Your task to perform on an android device: Go to ESPN.com Image 0: 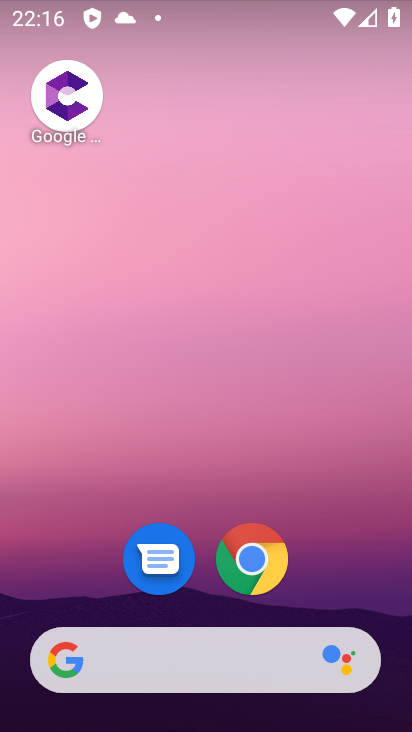
Step 0: click (255, 555)
Your task to perform on an android device: Go to ESPN.com Image 1: 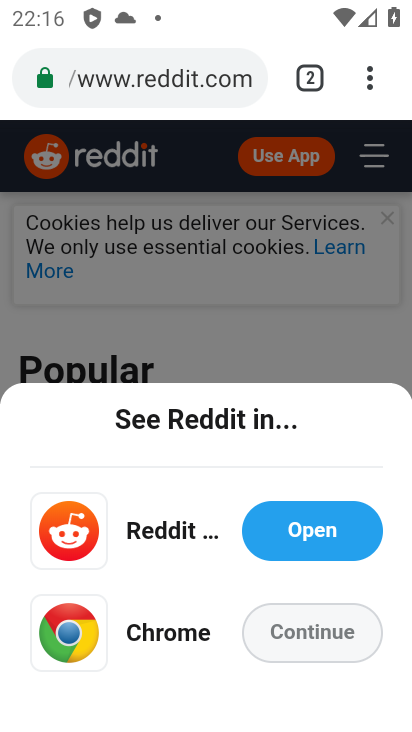
Step 1: click (219, 71)
Your task to perform on an android device: Go to ESPN.com Image 2: 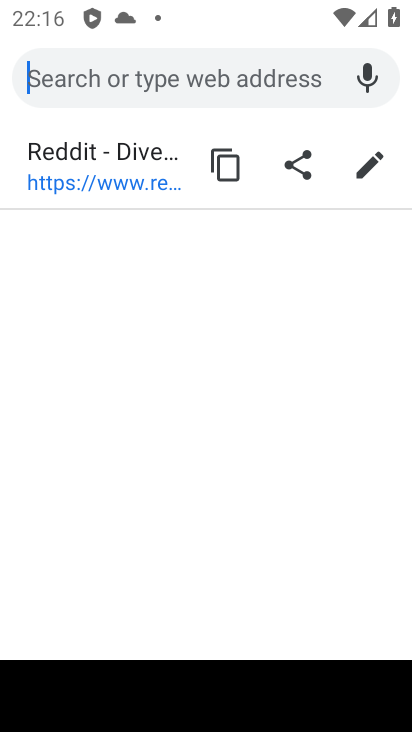
Step 2: type "espn.com"
Your task to perform on an android device: Go to ESPN.com Image 3: 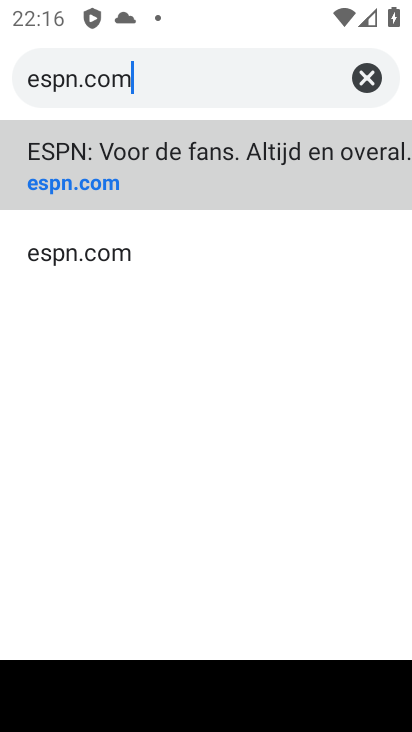
Step 3: click (76, 182)
Your task to perform on an android device: Go to ESPN.com Image 4: 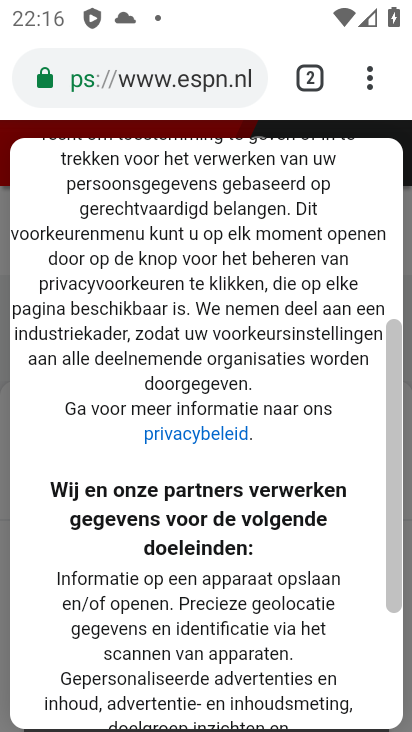
Step 4: task complete